Your task to perform on an android device: add a label to a message in the gmail app Image 0: 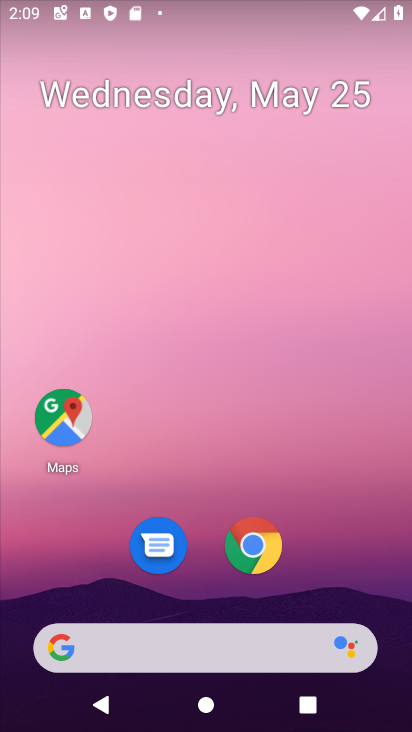
Step 0: drag from (398, 549) to (350, 207)
Your task to perform on an android device: add a label to a message in the gmail app Image 1: 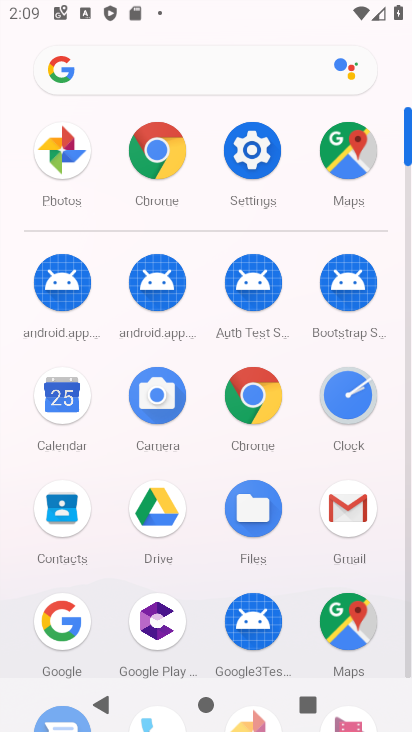
Step 1: click (350, 538)
Your task to perform on an android device: add a label to a message in the gmail app Image 2: 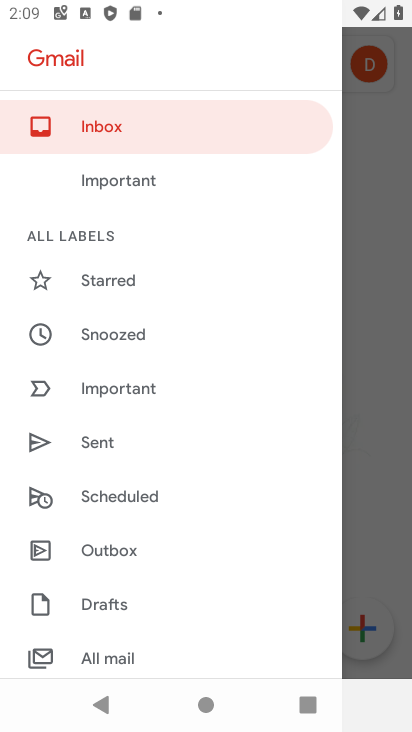
Step 2: drag from (160, 512) to (173, 353)
Your task to perform on an android device: add a label to a message in the gmail app Image 3: 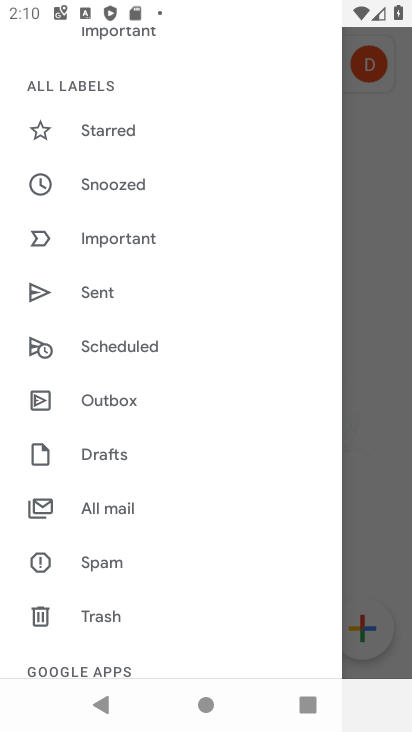
Step 3: click (147, 488)
Your task to perform on an android device: add a label to a message in the gmail app Image 4: 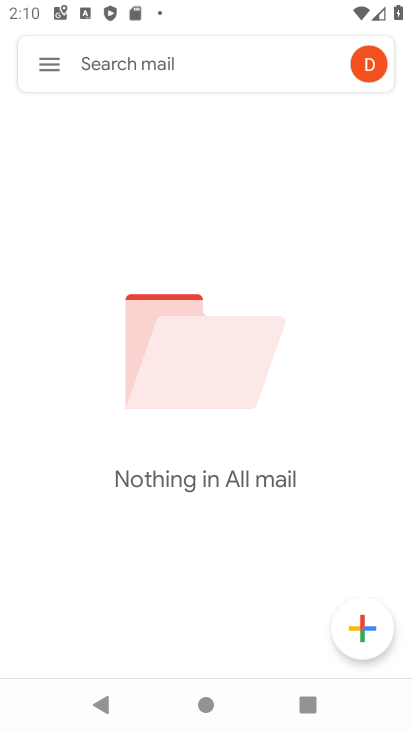
Step 4: task complete